Your task to perform on an android device: Go to network settings Image 0: 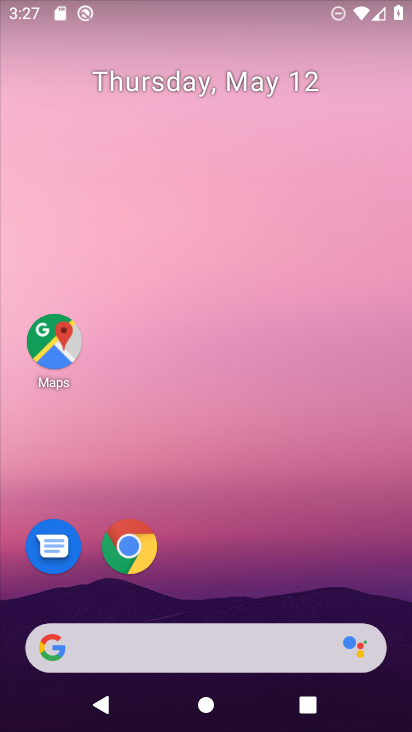
Step 0: drag from (231, 605) to (261, 144)
Your task to perform on an android device: Go to network settings Image 1: 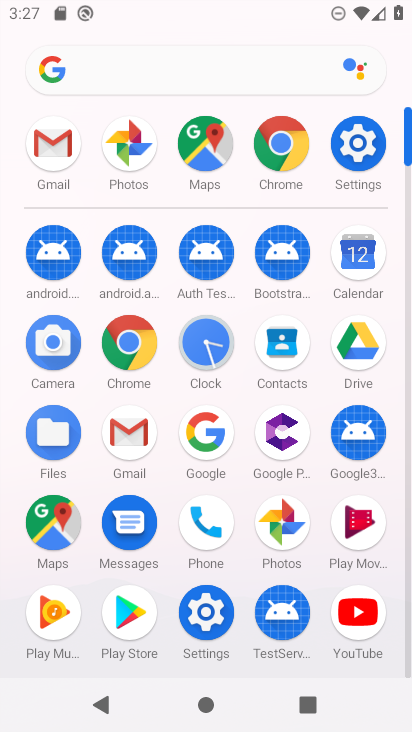
Step 1: click (349, 145)
Your task to perform on an android device: Go to network settings Image 2: 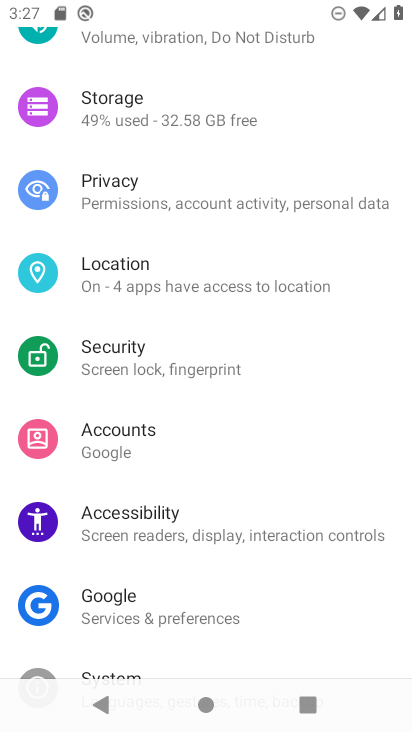
Step 2: drag from (155, 121) to (196, 559)
Your task to perform on an android device: Go to network settings Image 3: 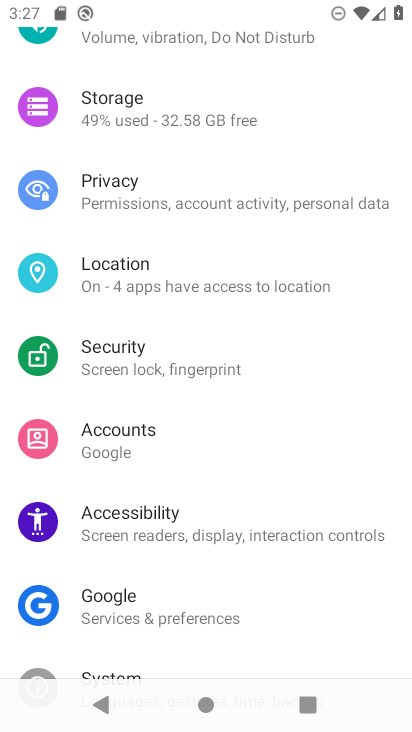
Step 3: drag from (273, 163) to (273, 698)
Your task to perform on an android device: Go to network settings Image 4: 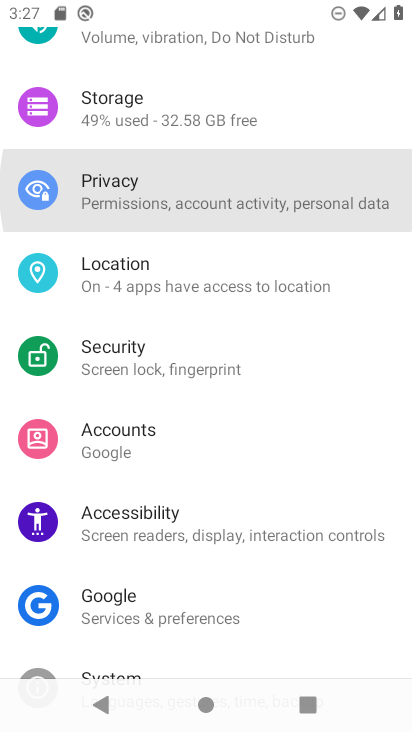
Step 4: drag from (226, 256) to (235, 661)
Your task to perform on an android device: Go to network settings Image 5: 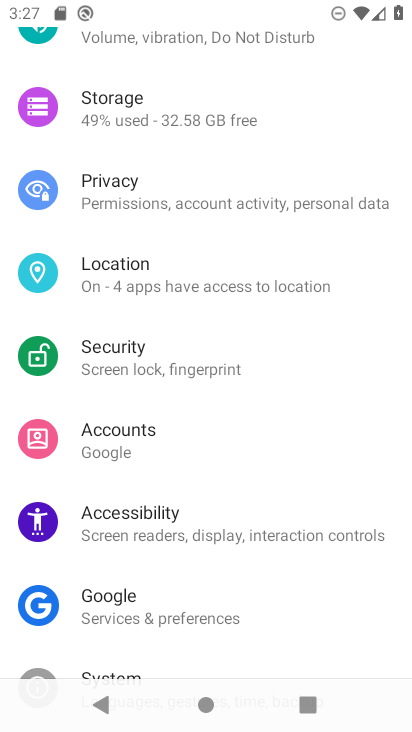
Step 5: drag from (206, 135) to (257, 396)
Your task to perform on an android device: Go to network settings Image 6: 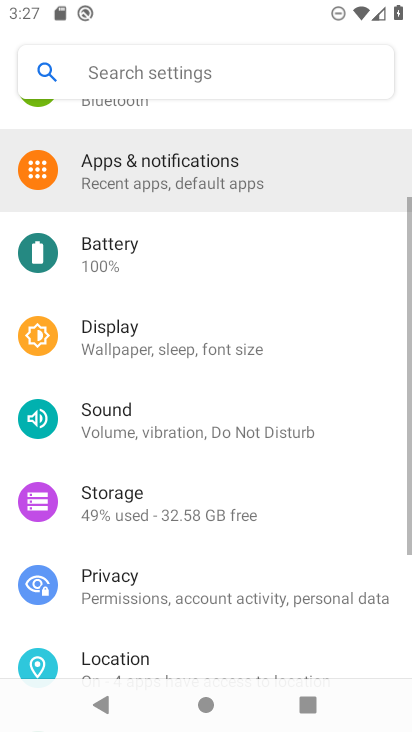
Step 6: drag from (210, 94) to (264, 466)
Your task to perform on an android device: Go to network settings Image 7: 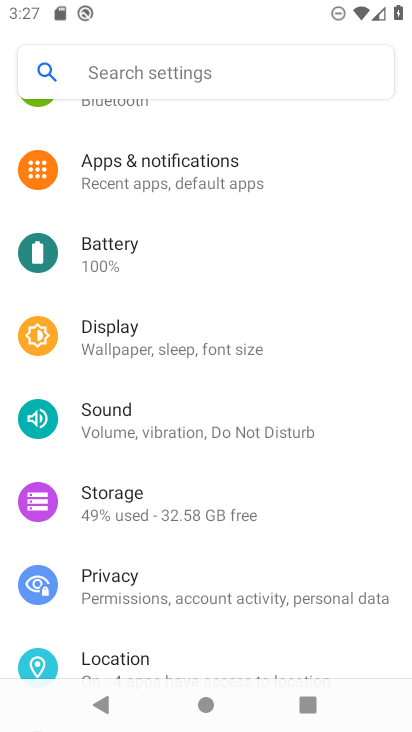
Step 7: drag from (202, 83) to (242, 396)
Your task to perform on an android device: Go to network settings Image 8: 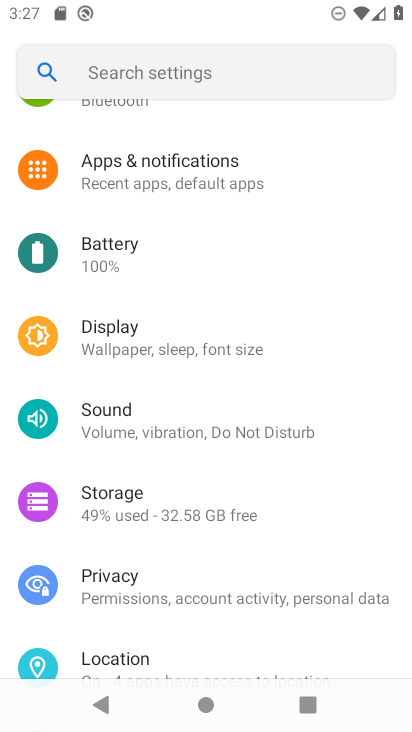
Step 8: drag from (234, 205) to (214, 572)
Your task to perform on an android device: Go to network settings Image 9: 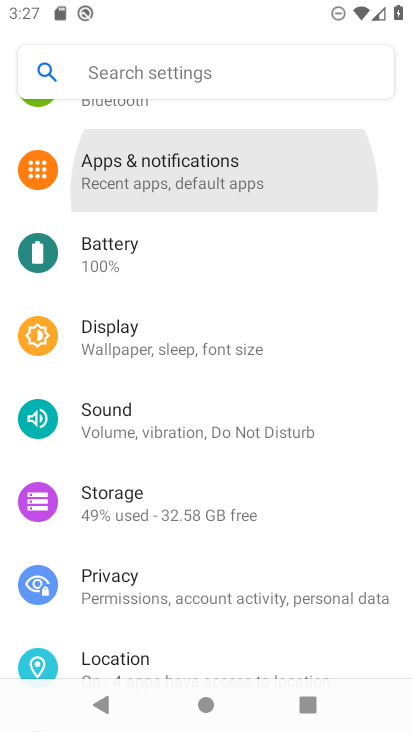
Step 9: drag from (191, 301) to (200, 593)
Your task to perform on an android device: Go to network settings Image 10: 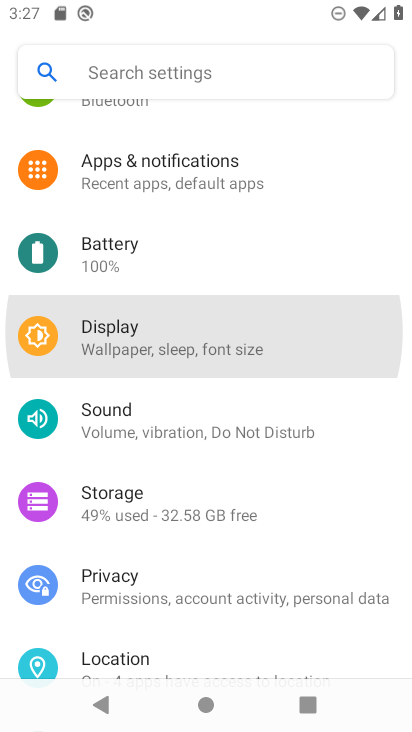
Step 10: drag from (187, 275) to (187, 416)
Your task to perform on an android device: Go to network settings Image 11: 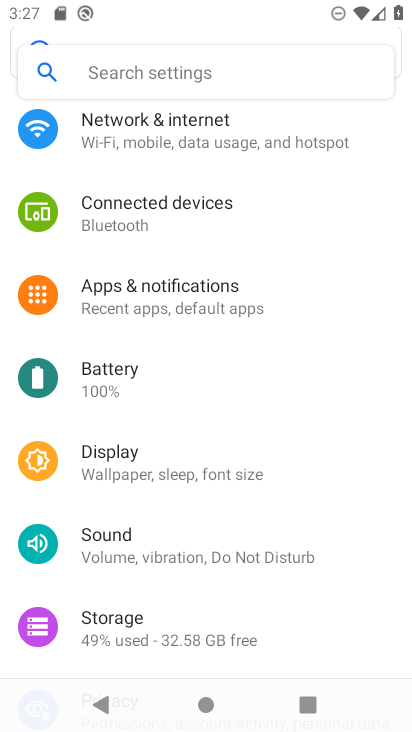
Step 11: click (193, 135)
Your task to perform on an android device: Go to network settings Image 12: 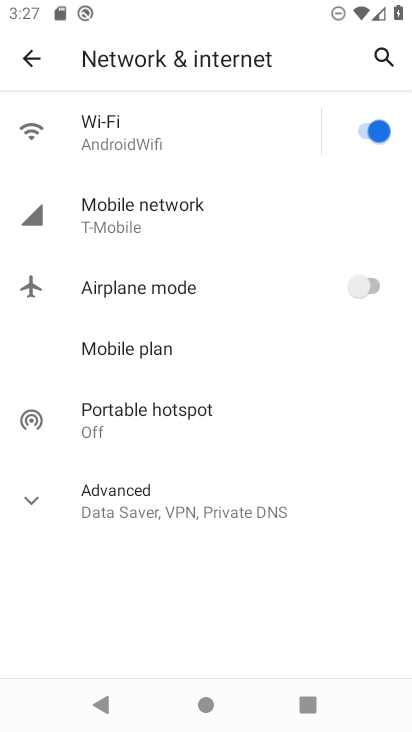
Step 12: task complete